Your task to perform on an android device: Go to Yahoo.com Image 0: 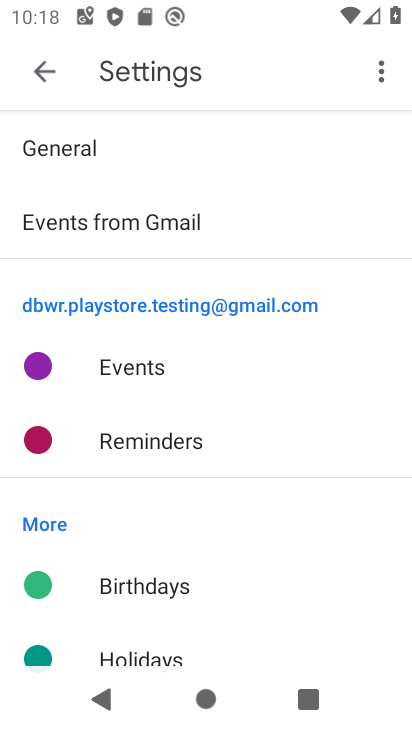
Step 0: press home button
Your task to perform on an android device: Go to Yahoo.com Image 1: 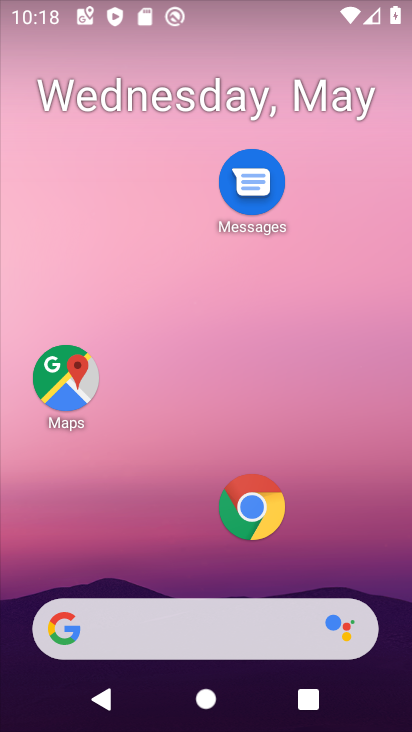
Step 1: click (250, 502)
Your task to perform on an android device: Go to Yahoo.com Image 2: 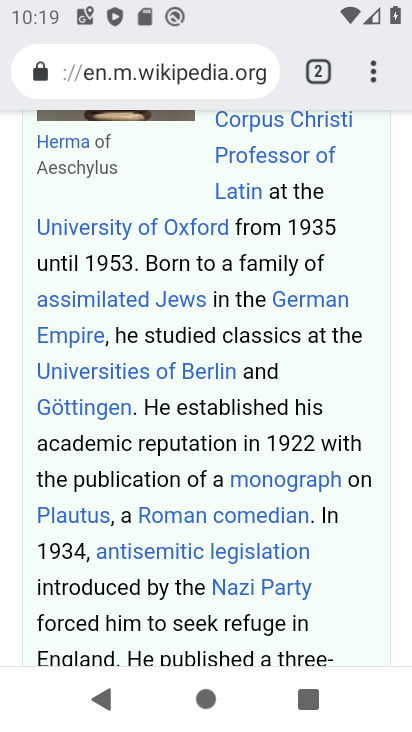
Step 2: click (308, 65)
Your task to perform on an android device: Go to Yahoo.com Image 3: 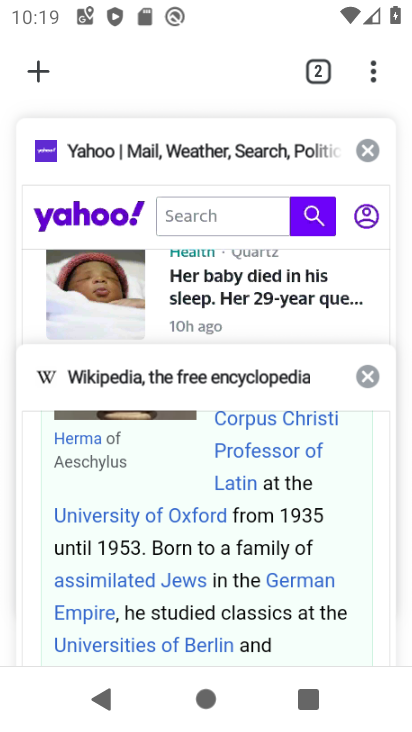
Step 3: click (266, 219)
Your task to perform on an android device: Go to Yahoo.com Image 4: 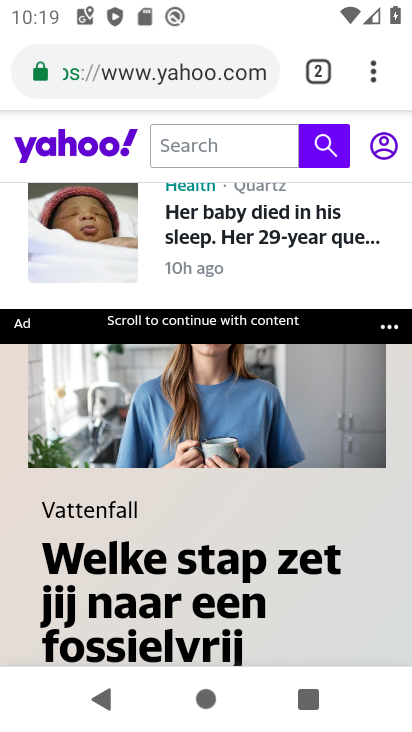
Step 4: task complete